Your task to perform on an android device: turn on location history Image 0: 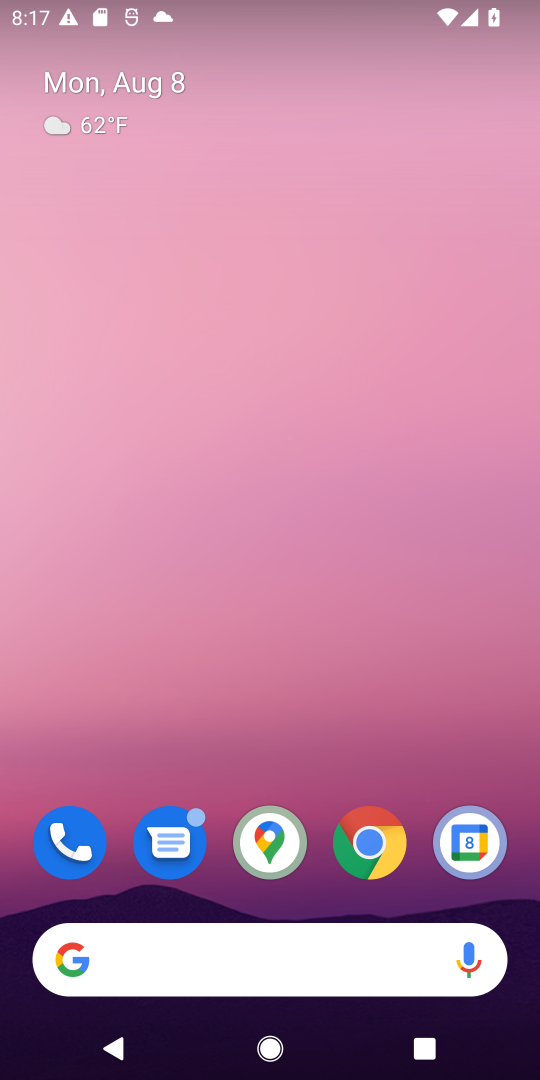
Step 0: drag from (284, 719) to (337, 0)
Your task to perform on an android device: turn on location history Image 1: 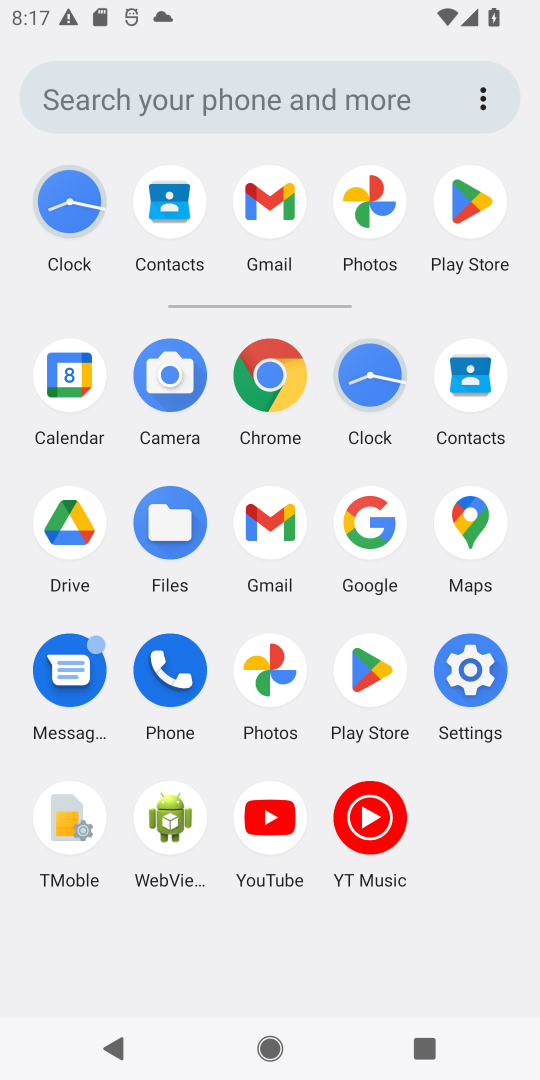
Step 1: click (469, 658)
Your task to perform on an android device: turn on location history Image 2: 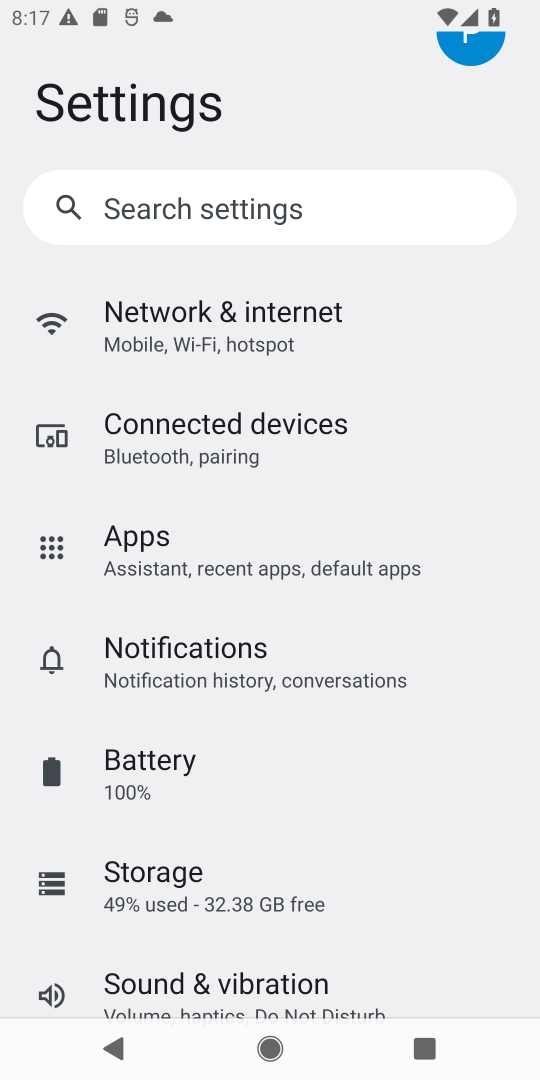
Step 2: drag from (284, 768) to (327, 75)
Your task to perform on an android device: turn on location history Image 3: 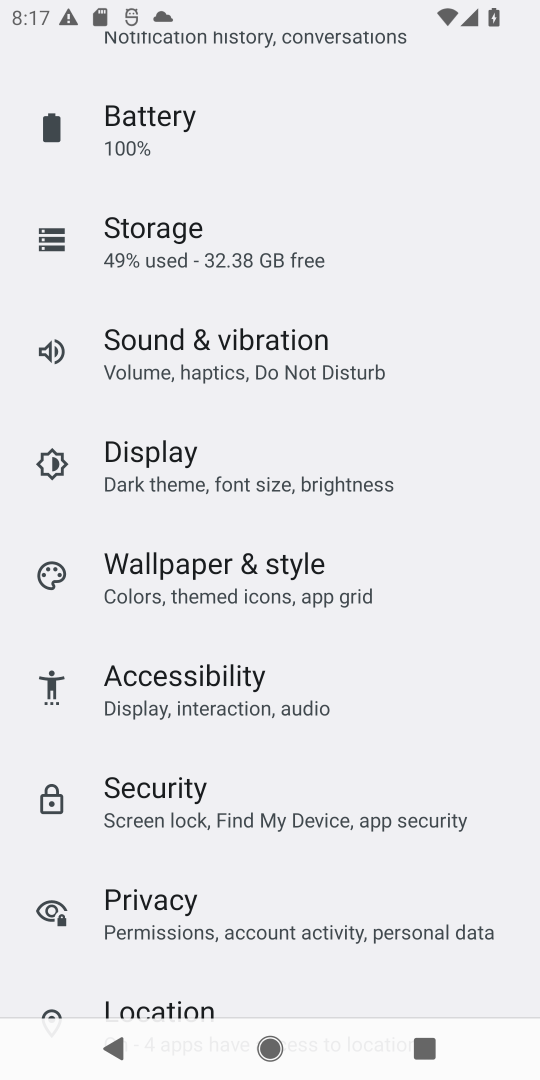
Step 3: drag from (405, 659) to (425, 149)
Your task to perform on an android device: turn on location history Image 4: 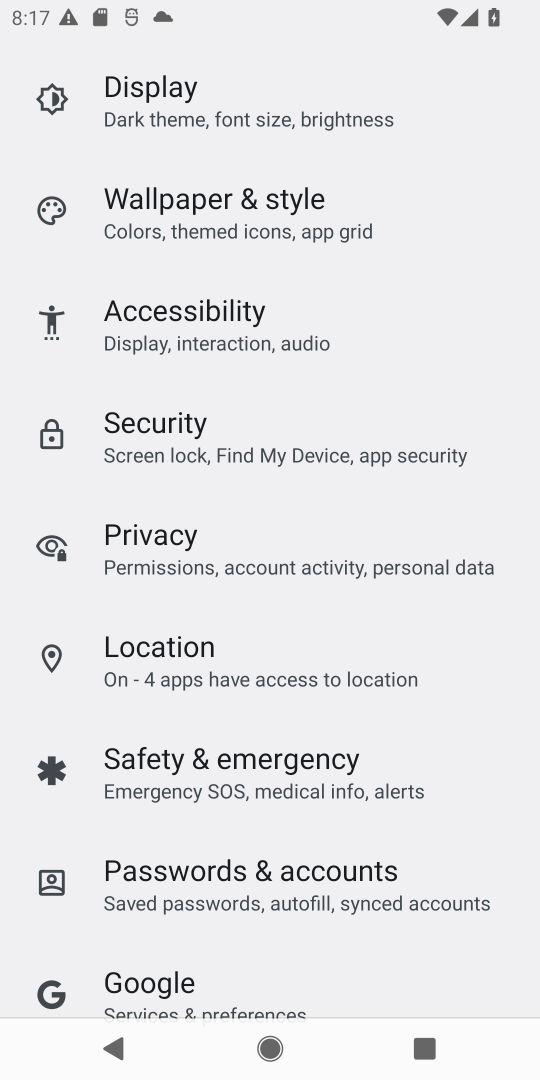
Step 4: click (228, 659)
Your task to perform on an android device: turn on location history Image 5: 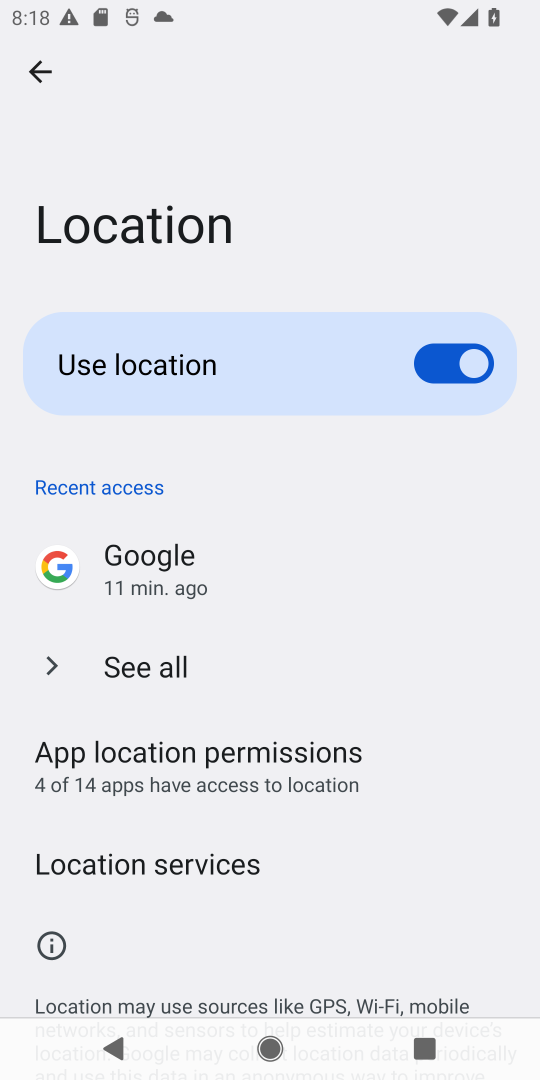
Step 5: drag from (296, 861) to (304, 182)
Your task to perform on an android device: turn on location history Image 6: 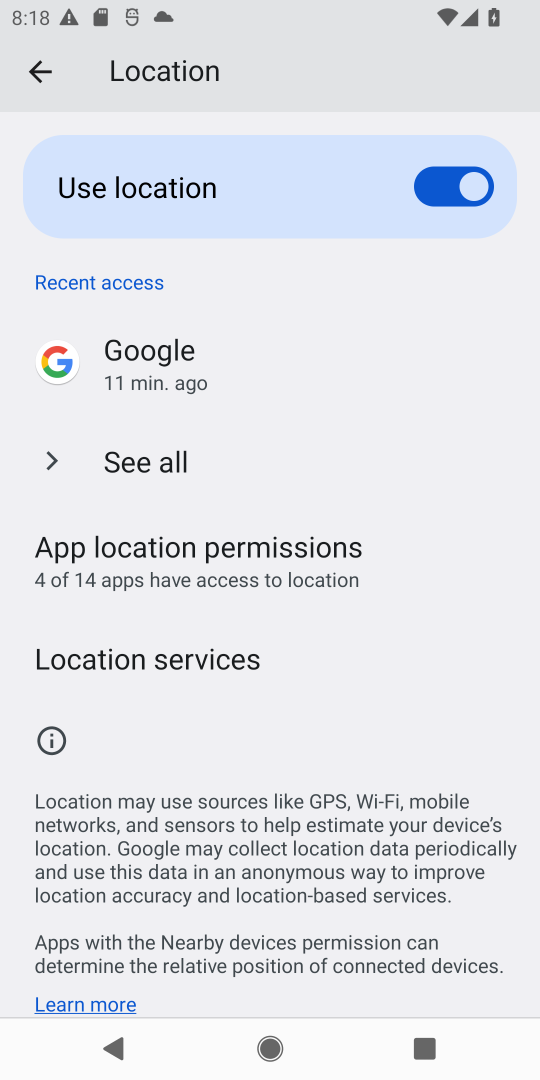
Step 6: click (162, 662)
Your task to perform on an android device: turn on location history Image 7: 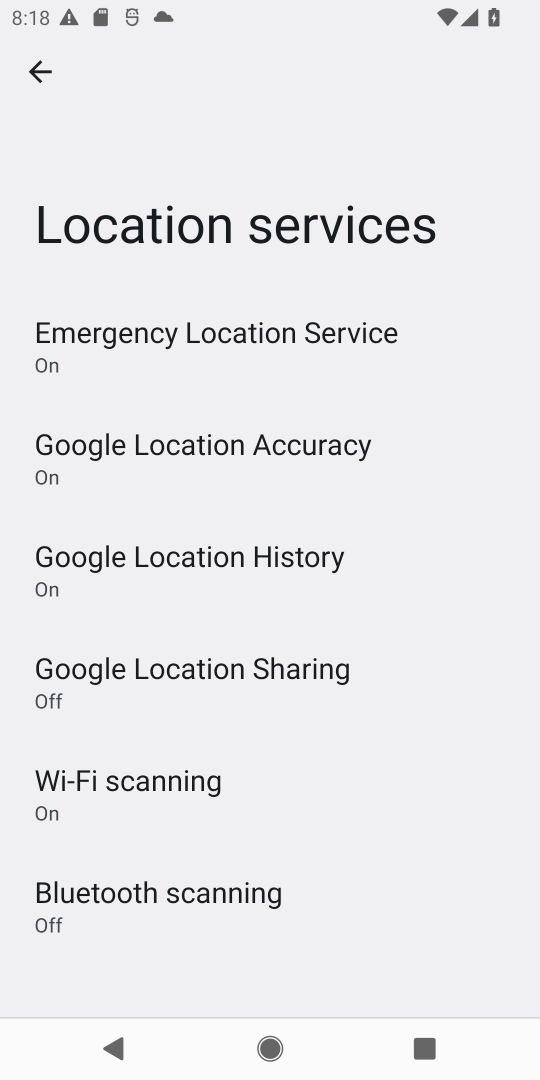
Step 7: click (220, 578)
Your task to perform on an android device: turn on location history Image 8: 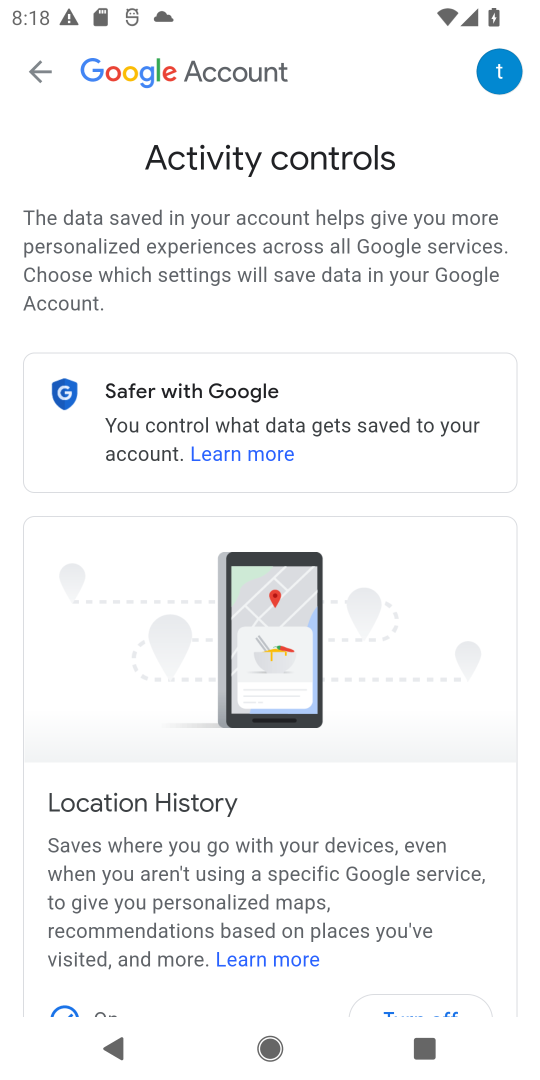
Step 8: task complete